Your task to perform on an android device: Open Android settings Image 0: 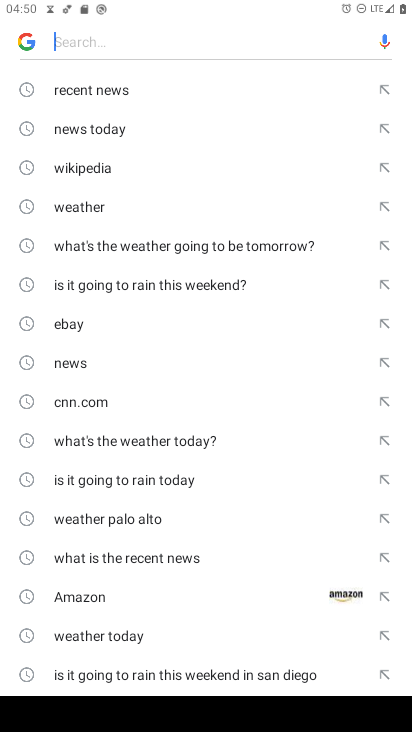
Step 0: press home button
Your task to perform on an android device: Open Android settings Image 1: 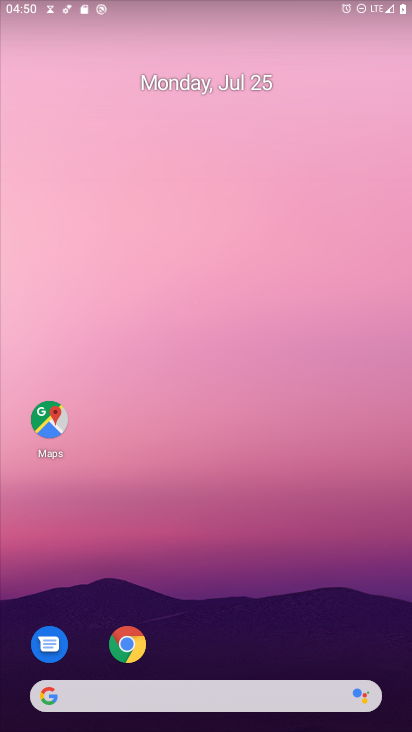
Step 1: drag from (299, 587) to (255, 69)
Your task to perform on an android device: Open Android settings Image 2: 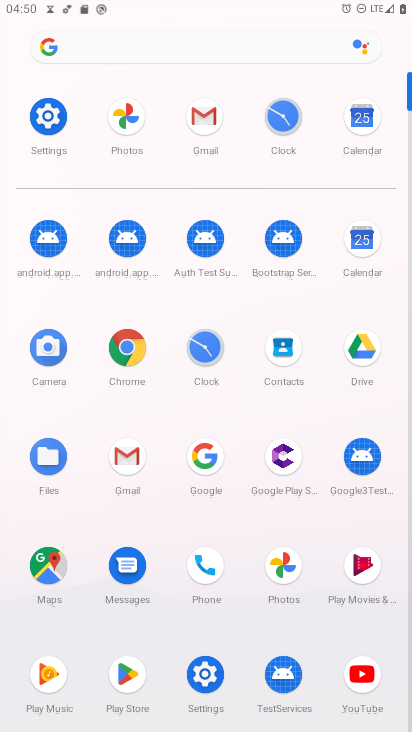
Step 2: click (45, 120)
Your task to perform on an android device: Open Android settings Image 3: 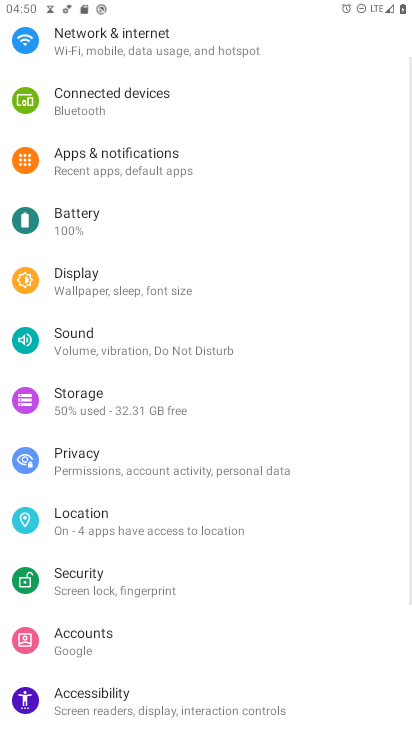
Step 3: task complete